Your task to perform on an android device: add a label to a message in the gmail app Image 0: 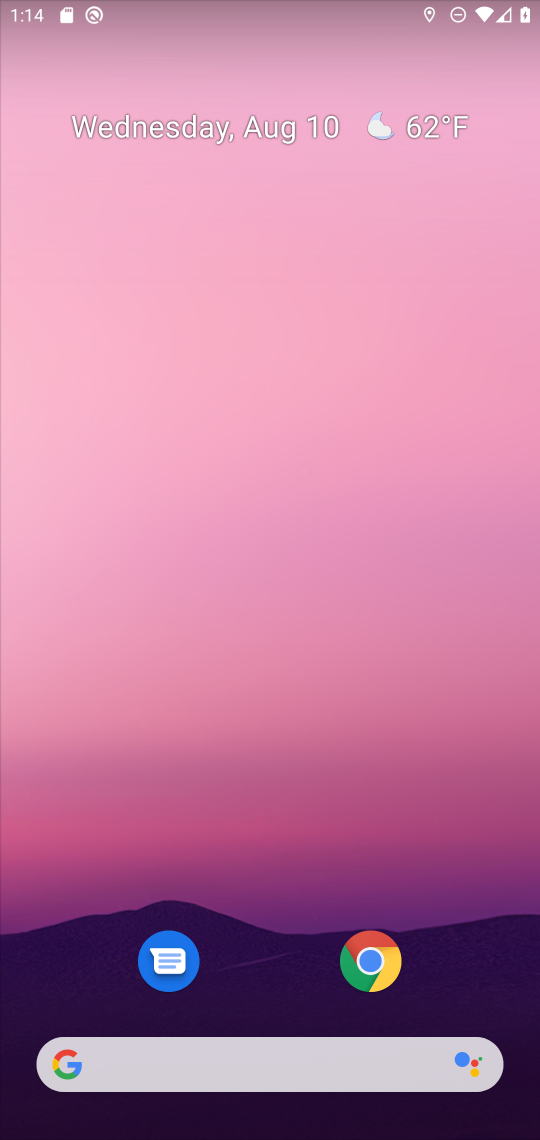
Step 0: drag from (254, 969) to (167, 0)
Your task to perform on an android device: add a label to a message in the gmail app Image 1: 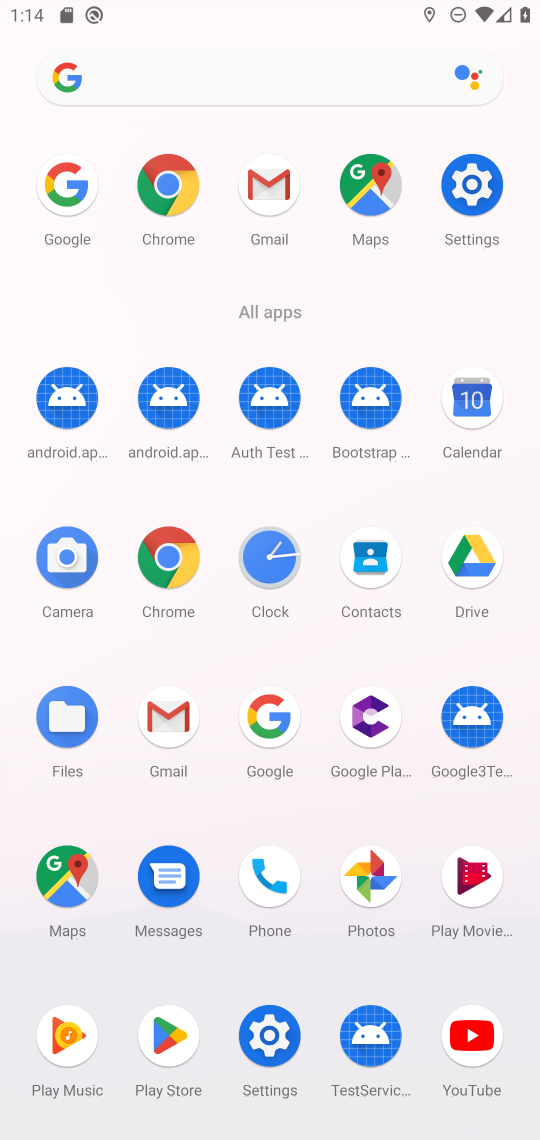
Step 1: click (278, 195)
Your task to perform on an android device: add a label to a message in the gmail app Image 2: 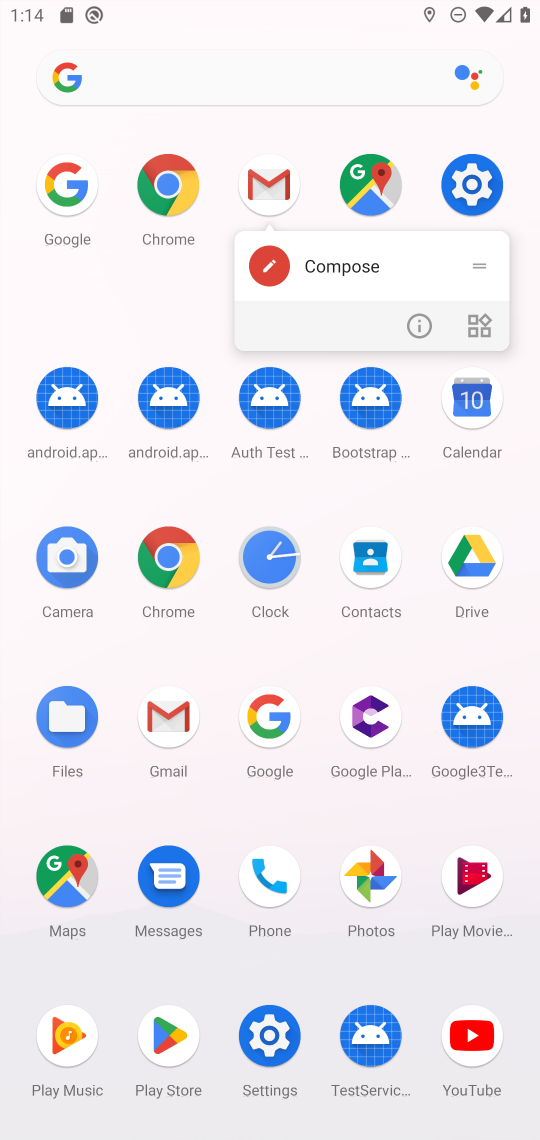
Step 2: click (271, 181)
Your task to perform on an android device: add a label to a message in the gmail app Image 3: 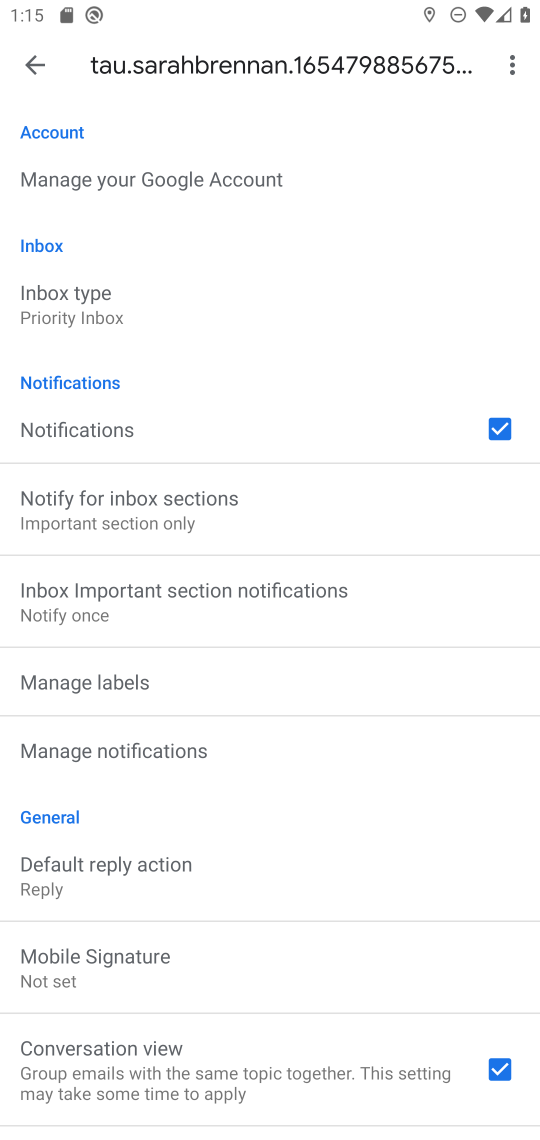
Step 3: click (34, 65)
Your task to perform on an android device: add a label to a message in the gmail app Image 4: 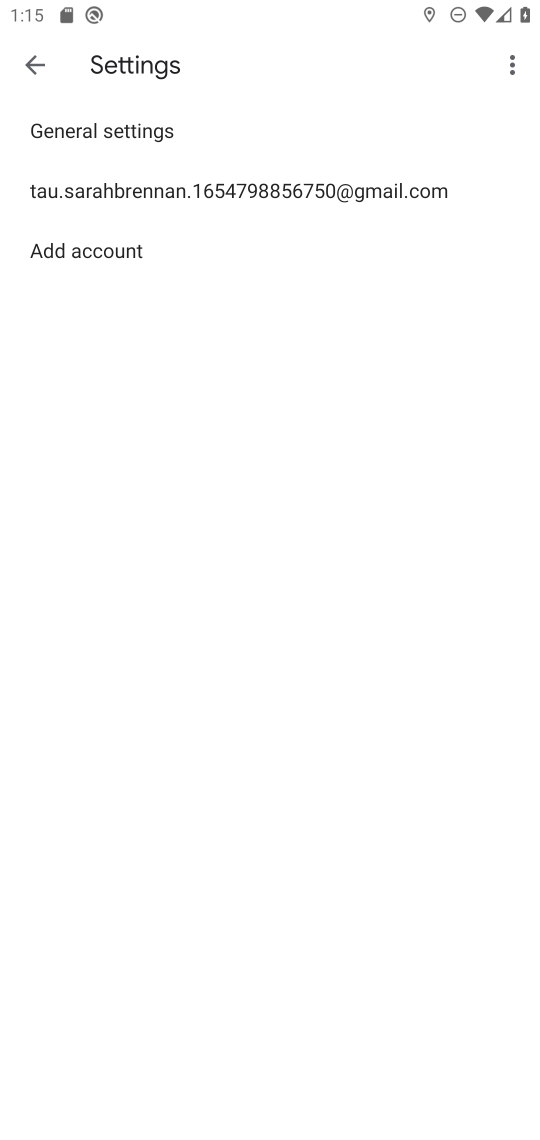
Step 4: click (33, 69)
Your task to perform on an android device: add a label to a message in the gmail app Image 5: 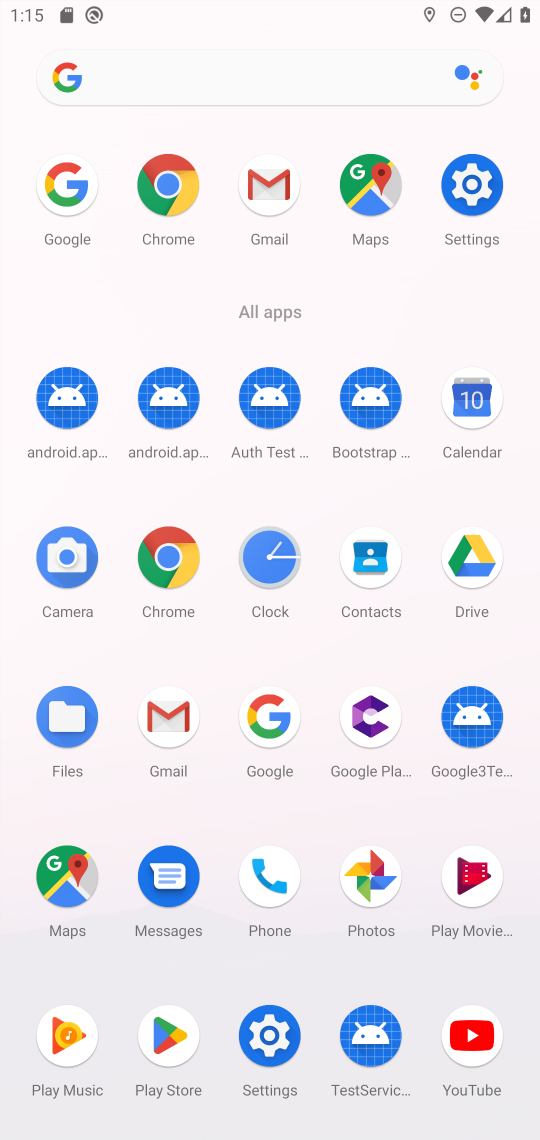
Step 5: click (254, 186)
Your task to perform on an android device: add a label to a message in the gmail app Image 6: 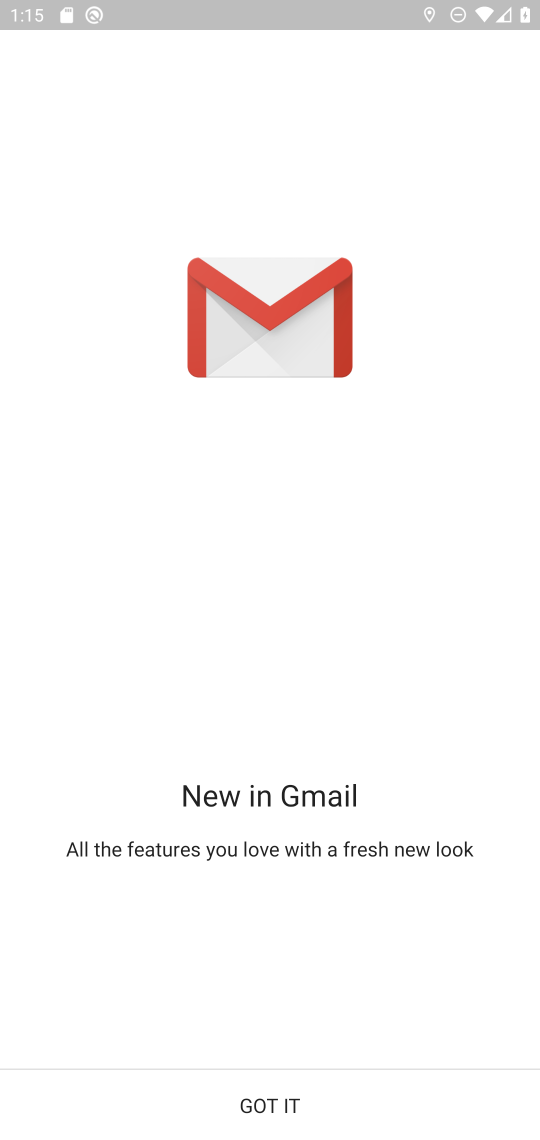
Step 6: click (275, 1093)
Your task to perform on an android device: add a label to a message in the gmail app Image 7: 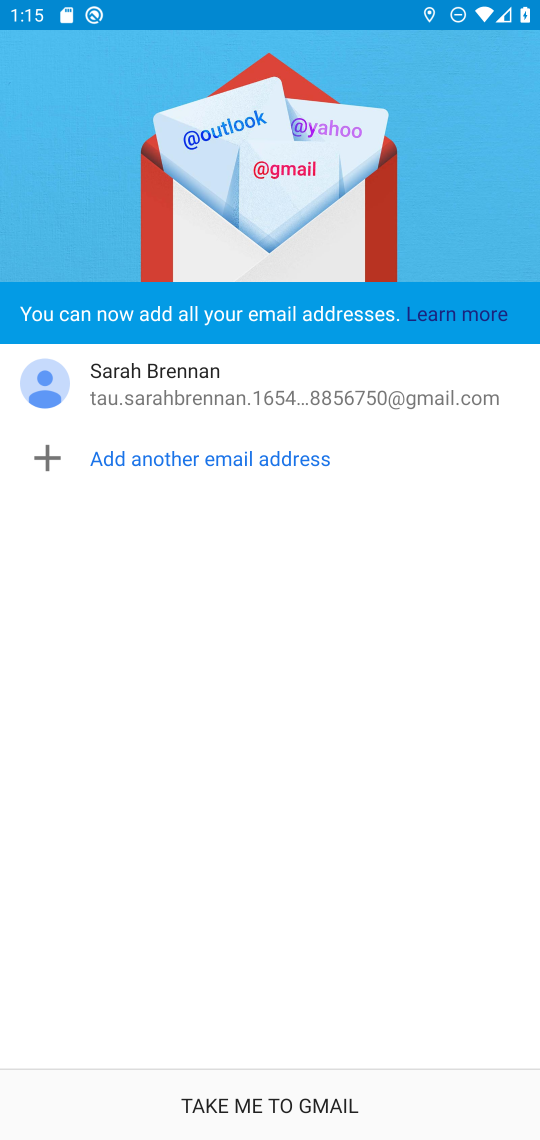
Step 7: click (283, 1109)
Your task to perform on an android device: add a label to a message in the gmail app Image 8: 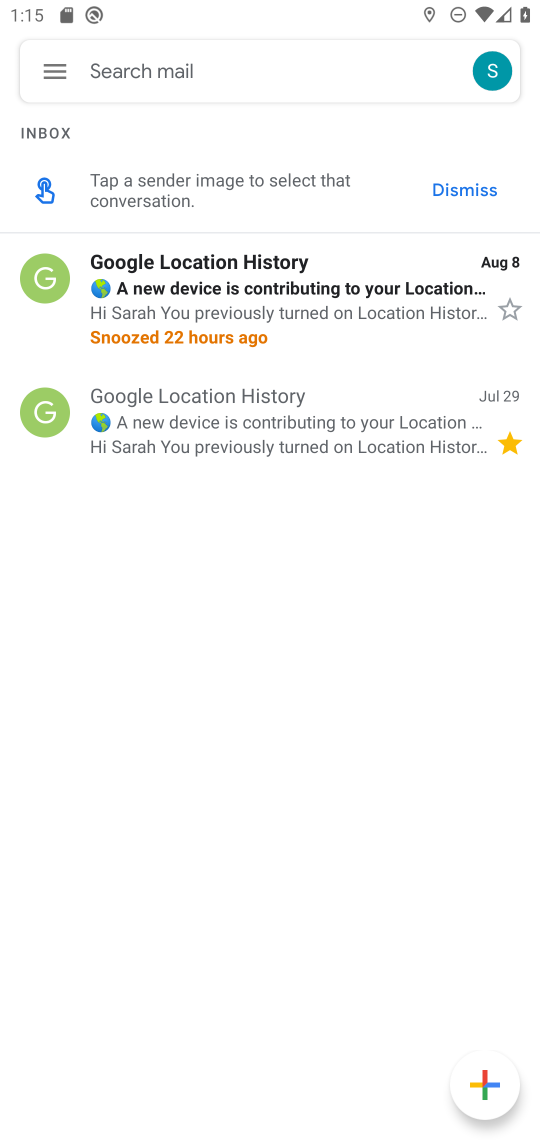
Step 8: click (244, 303)
Your task to perform on an android device: add a label to a message in the gmail app Image 9: 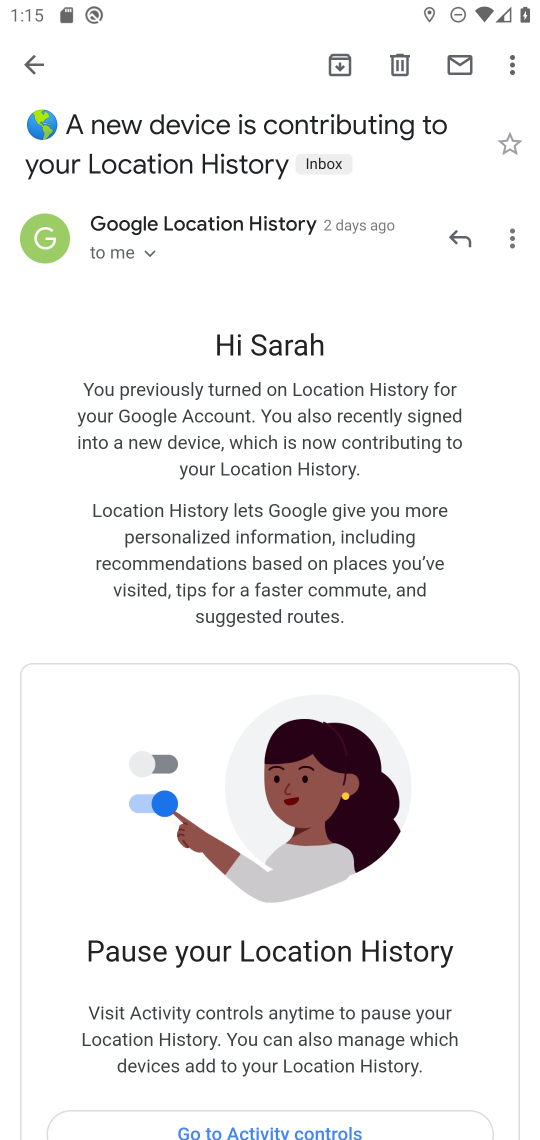
Step 9: click (512, 52)
Your task to perform on an android device: add a label to a message in the gmail app Image 10: 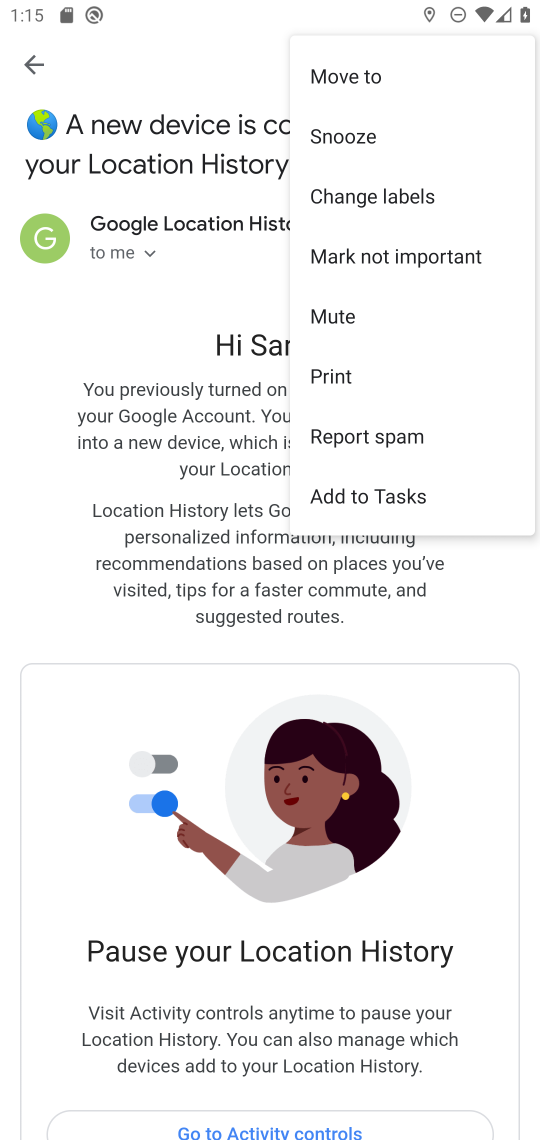
Step 10: click (368, 190)
Your task to perform on an android device: add a label to a message in the gmail app Image 11: 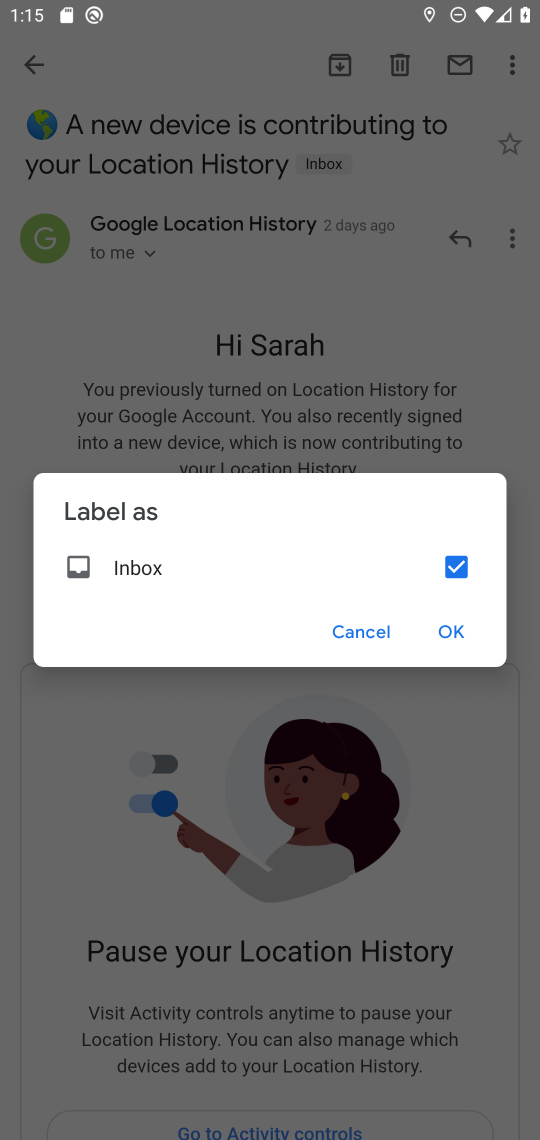
Step 11: click (450, 627)
Your task to perform on an android device: add a label to a message in the gmail app Image 12: 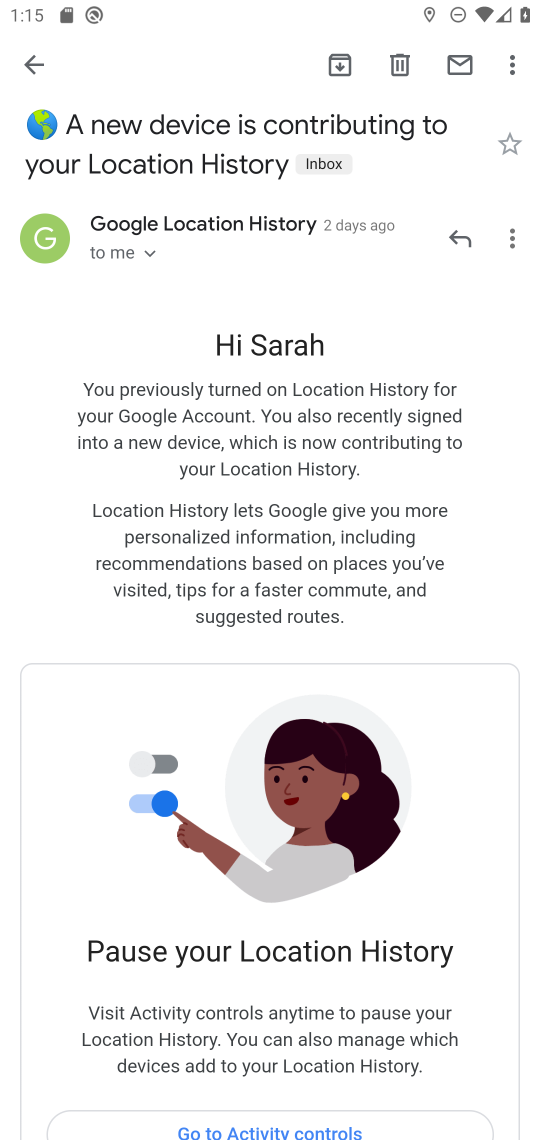
Step 12: task complete